Your task to perform on an android device: uninstall "Microsoft Authenticator" Image 0: 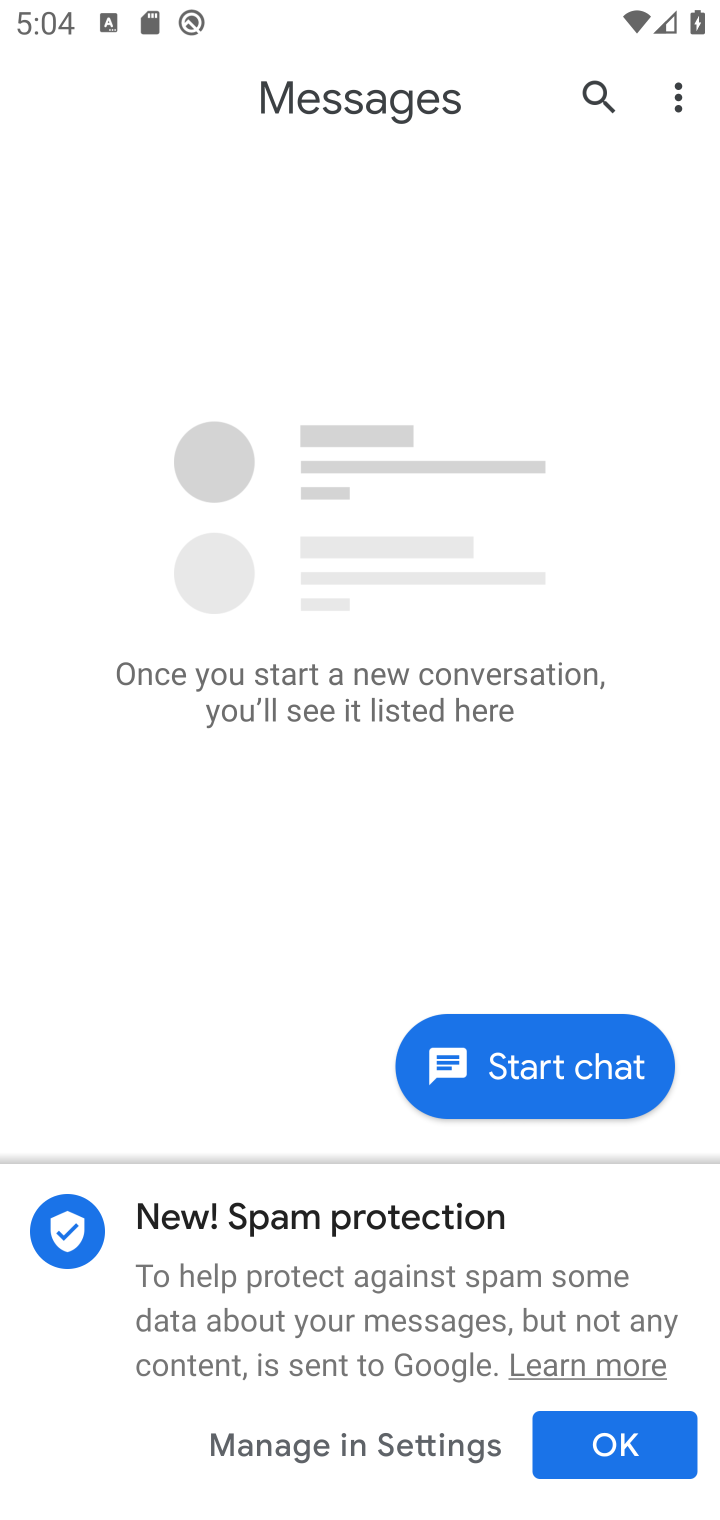
Step 0: press home button
Your task to perform on an android device: uninstall "Microsoft Authenticator" Image 1: 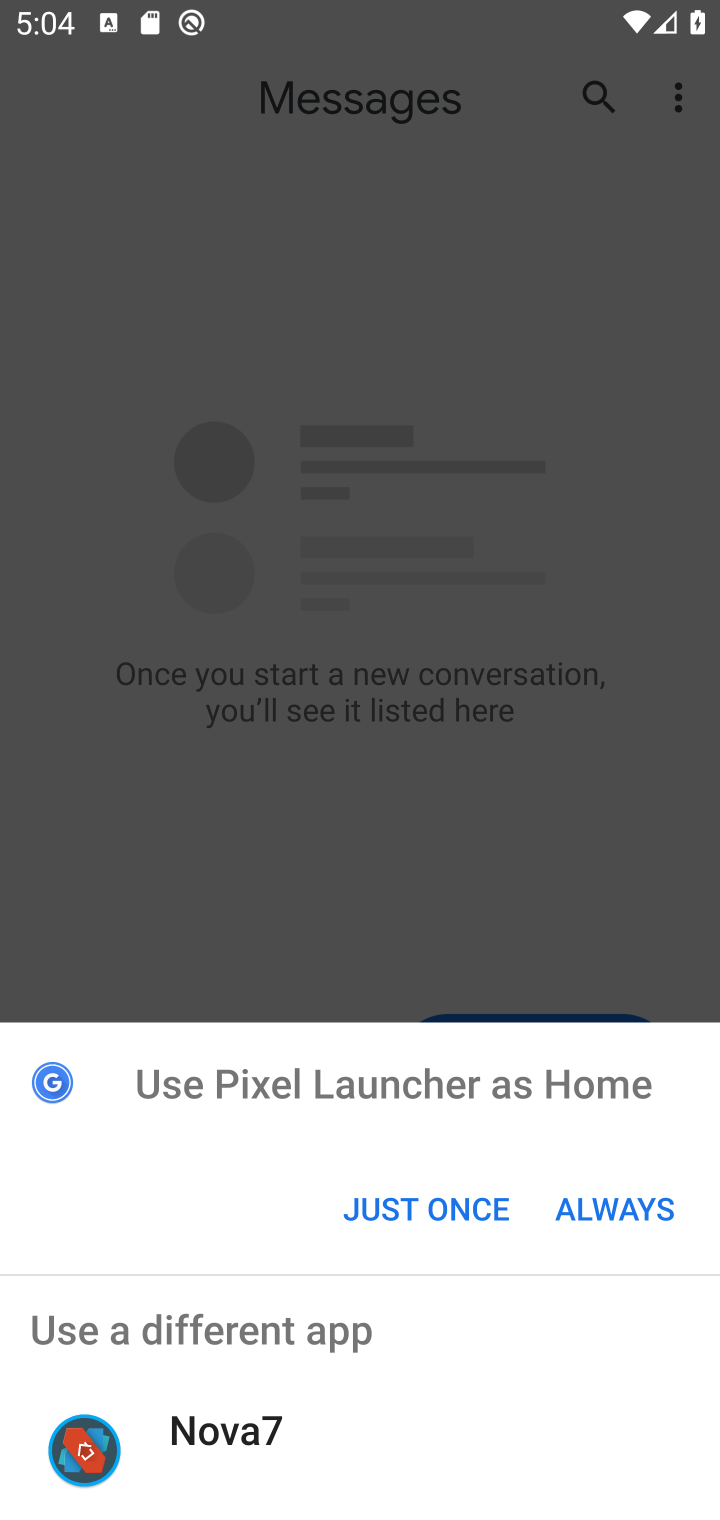
Step 1: click (455, 1199)
Your task to perform on an android device: uninstall "Microsoft Authenticator" Image 2: 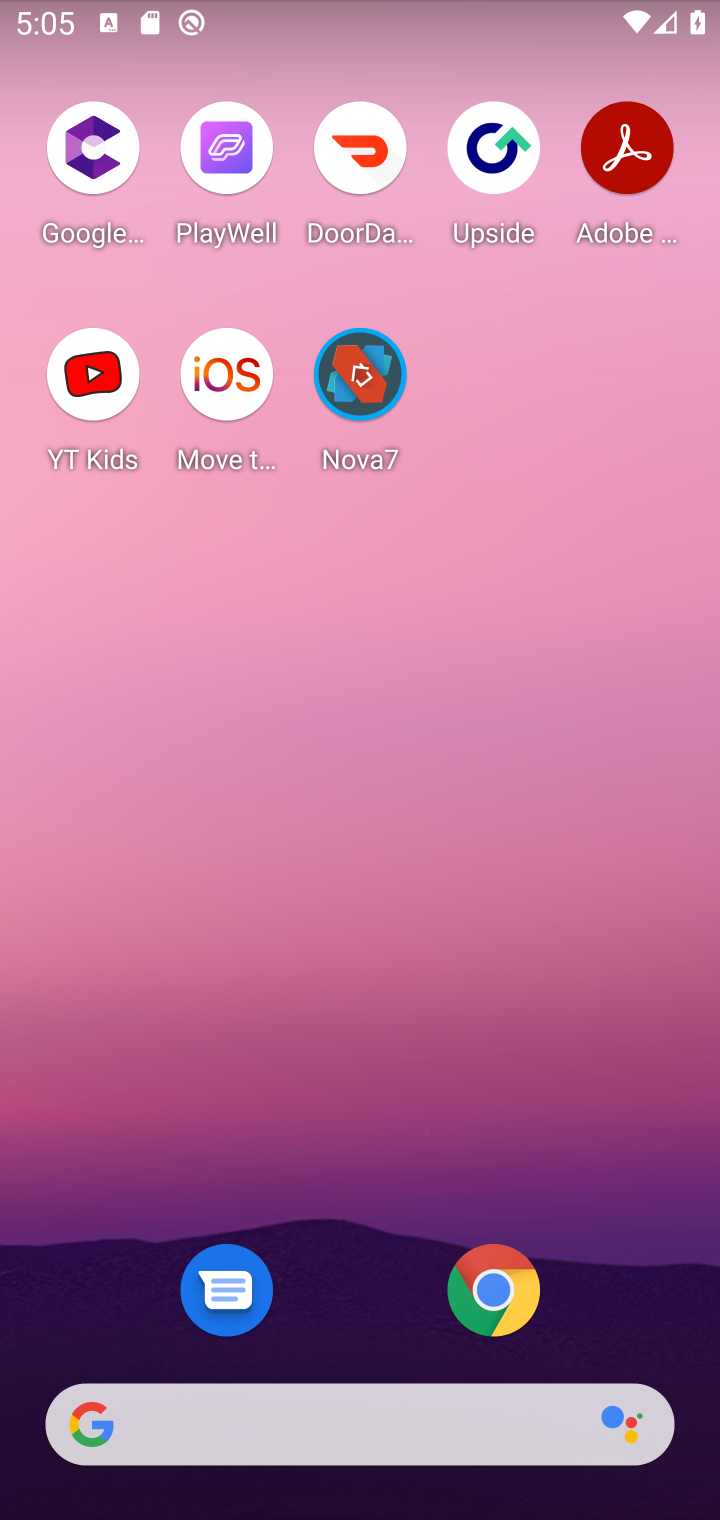
Step 2: drag from (439, 1414) to (450, 111)
Your task to perform on an android device: uninstall "Microsoft Authenticator" Image 3: 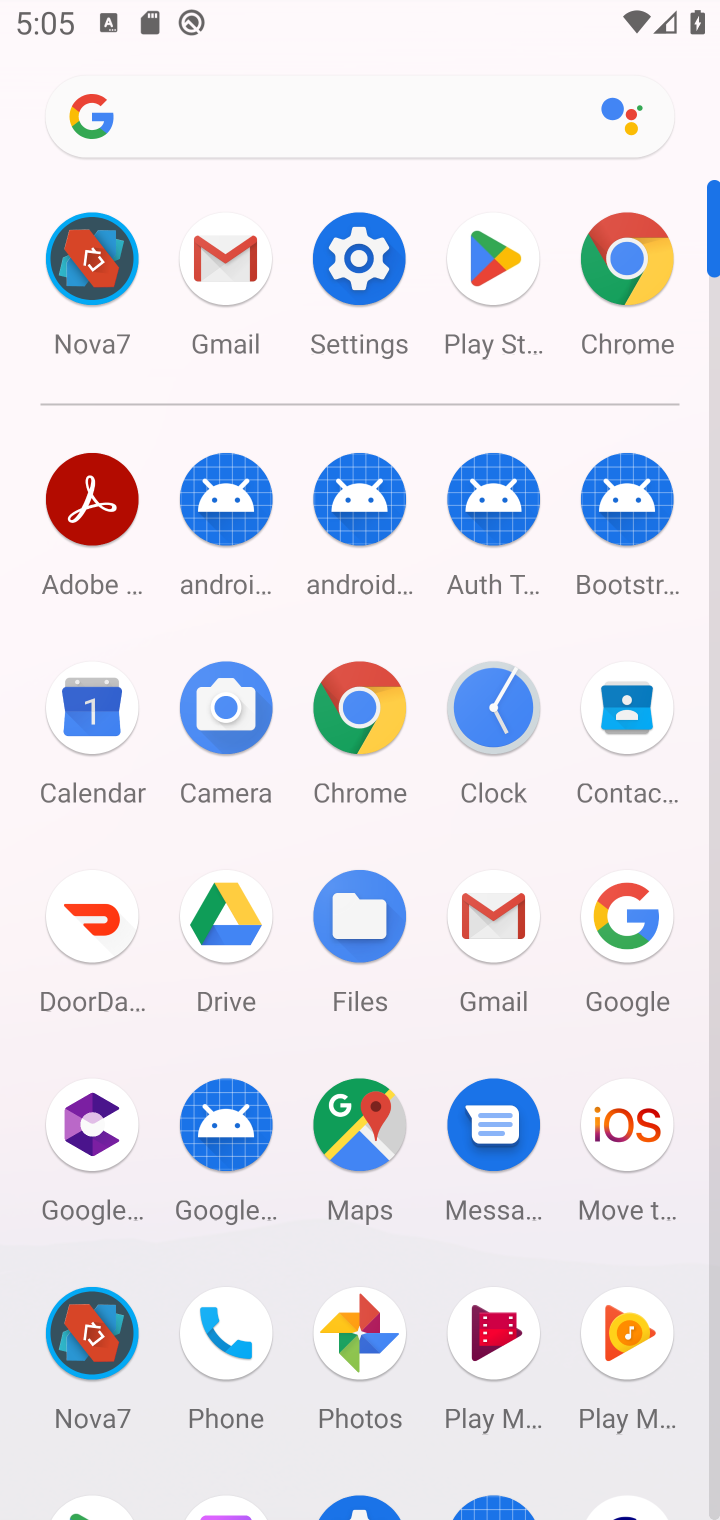
Step 3: click (507, 291)
Your task to perform on an android device: uninstall "Microsoft Authenticator" Image 4: 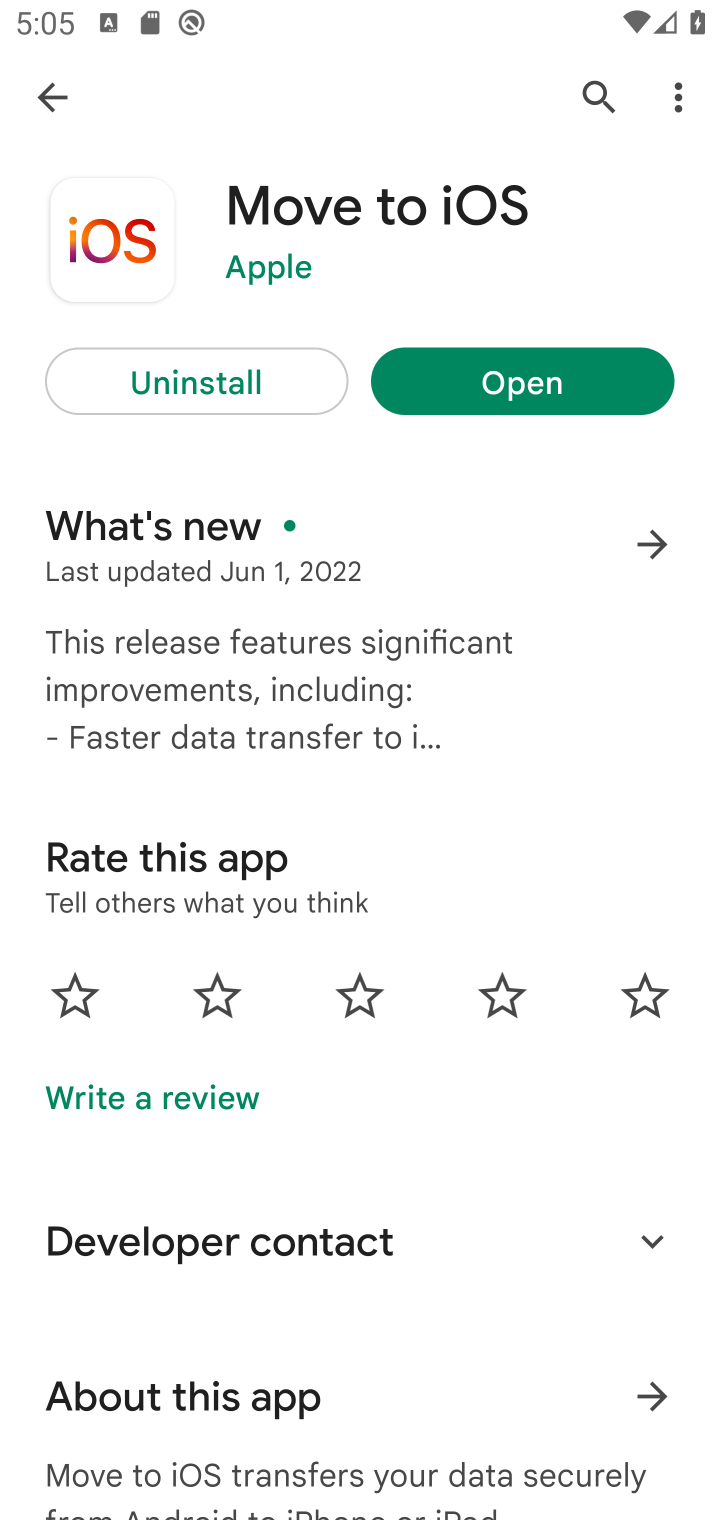
Step 4: click (591, 96)
Your task to perform on an android device: uninstall "Microsoft Authenticator" Image 5: 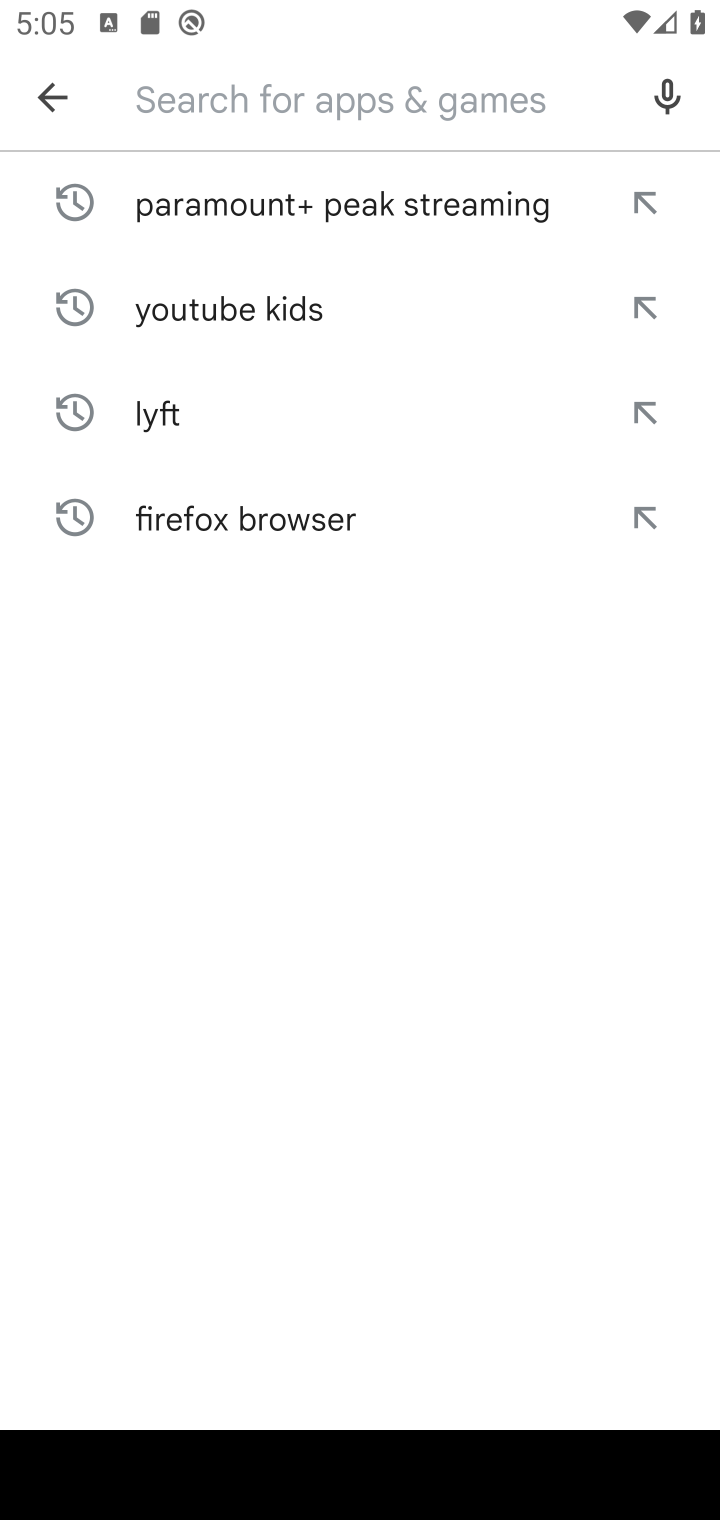
Step 5: type "microsoft authenticator"
Your task to perform on an android device: uninstall "Microsoft Authenticator" Image 6: 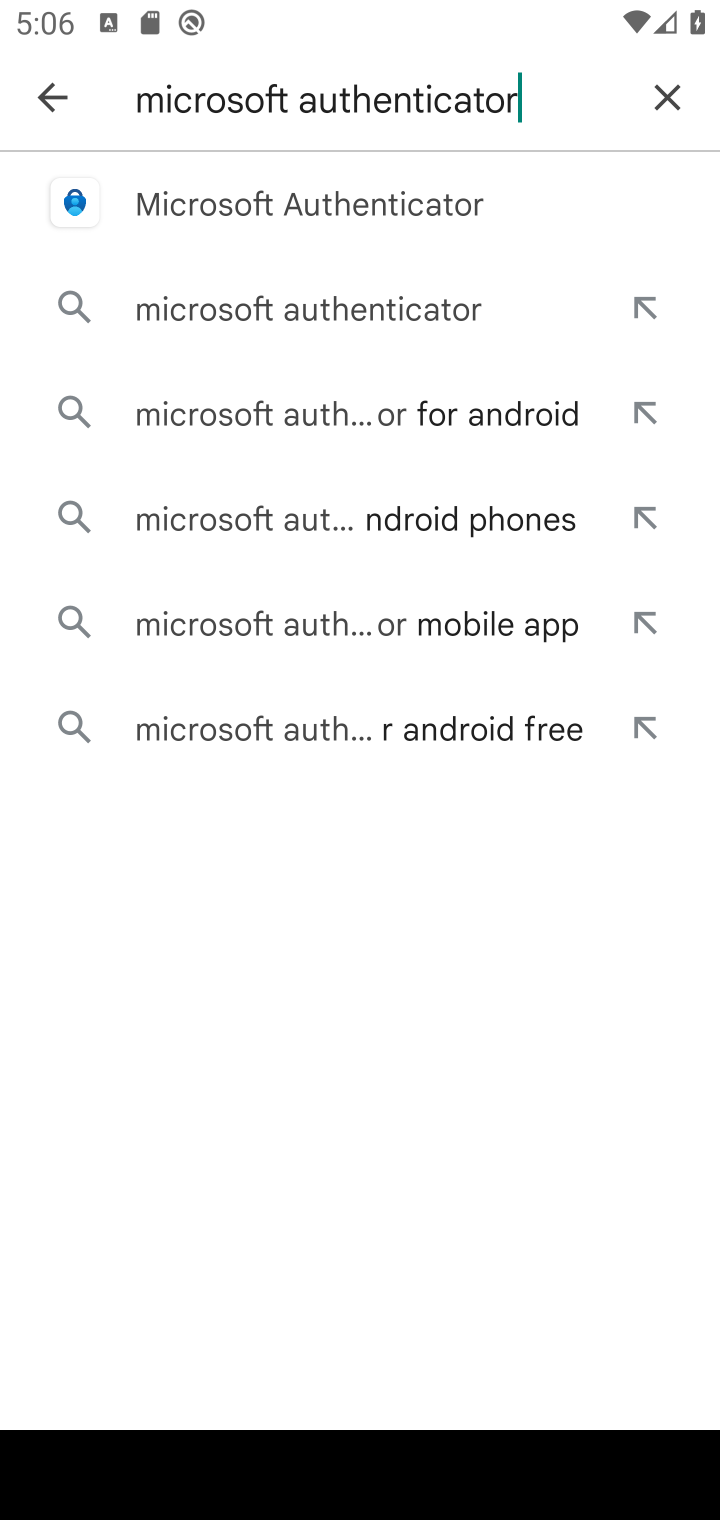
Step 6: click (486, 221)
Your task to perform on an android device: uninstall "Microsoft Authenticator" Image 7: 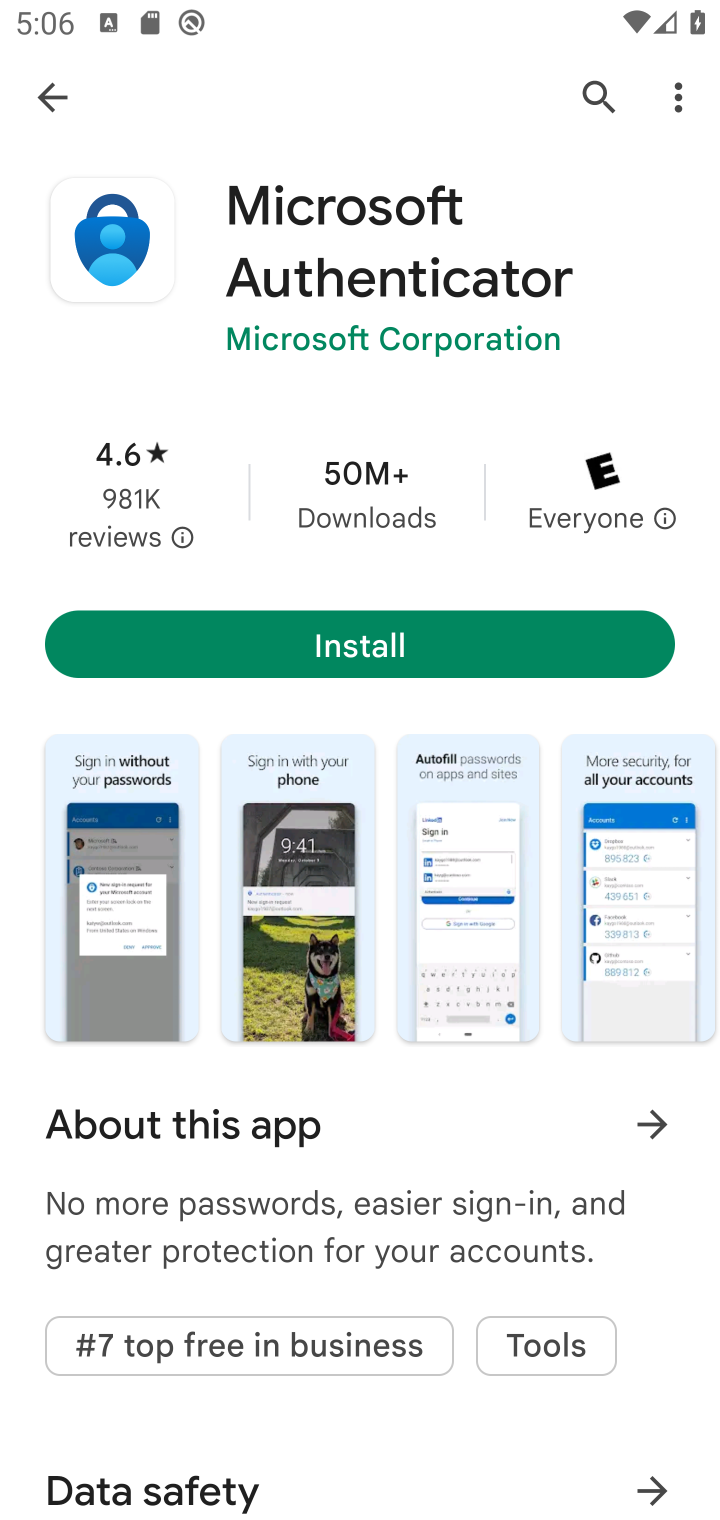
Step 7: task complete